Your task to perform on an android device: Open the stopwatch Image 0: 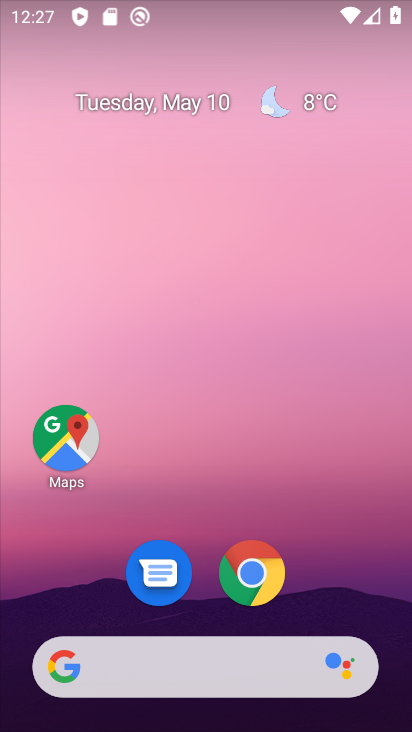
Step 0: drag from (213, 606) to (124, 3)
Your task to perform on an android device: Open the stopwatch Image 1: 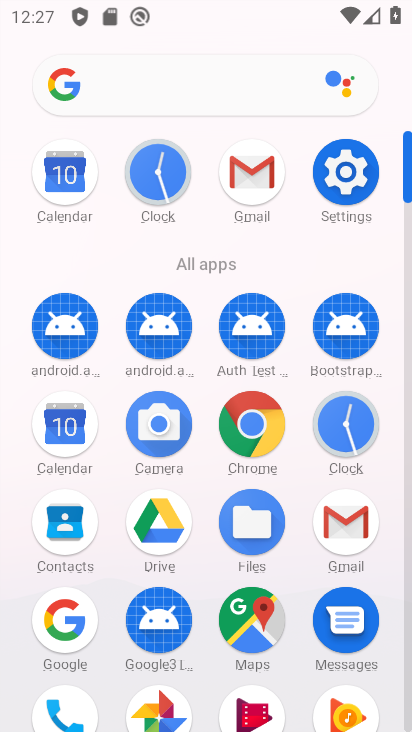
Step 1: click (169, 177)
Your task to perform on an android device: Open the stopwatch Image 2: 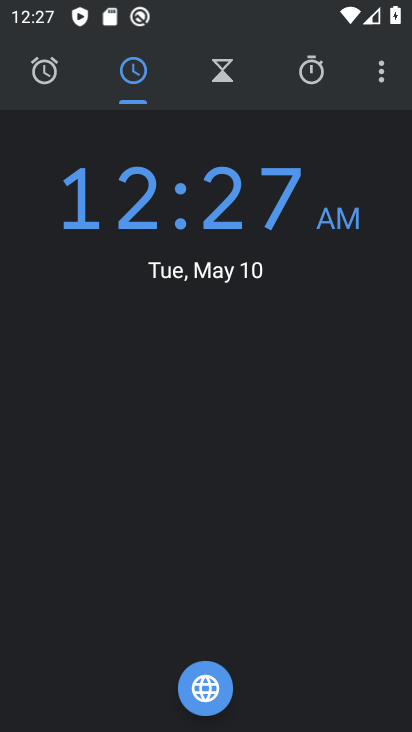
Step 2: click (301, 85)
Your task to perform on an android device: Open the stopwatch Image 3: 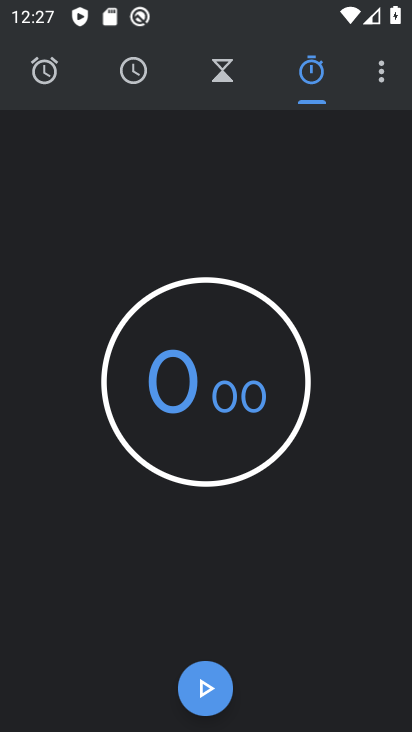
Step 3: click (195, 687)
Your task to perform on an android device: Open the stopwatch Image 4: 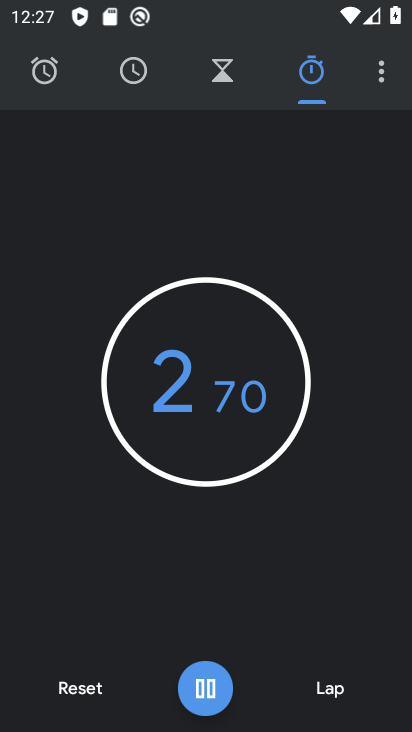
Step 4: task complete